Your task to perform on an android device: Google the capital of Peru Image 0: 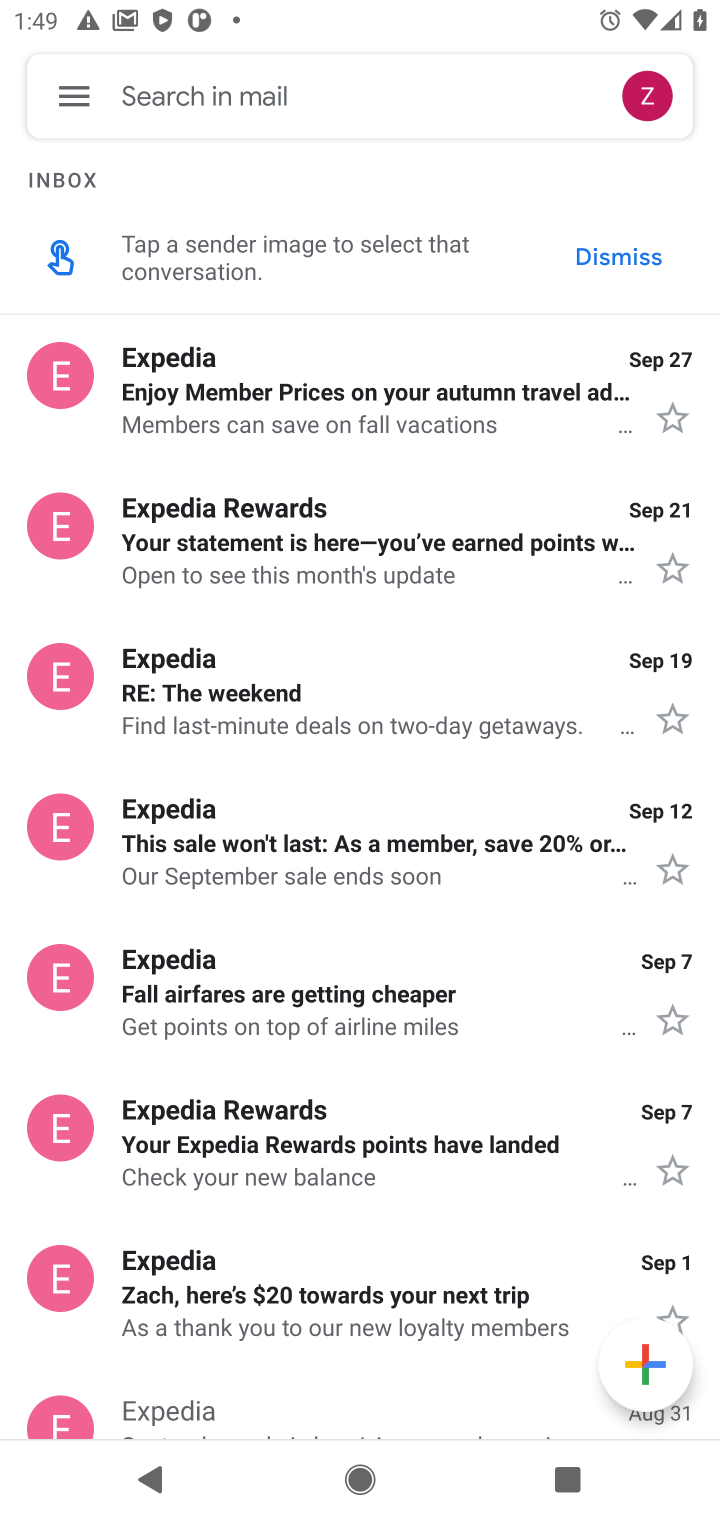
Step 0: press home button
Your task to perform on an android device: Google the capital of Peru Image 1: 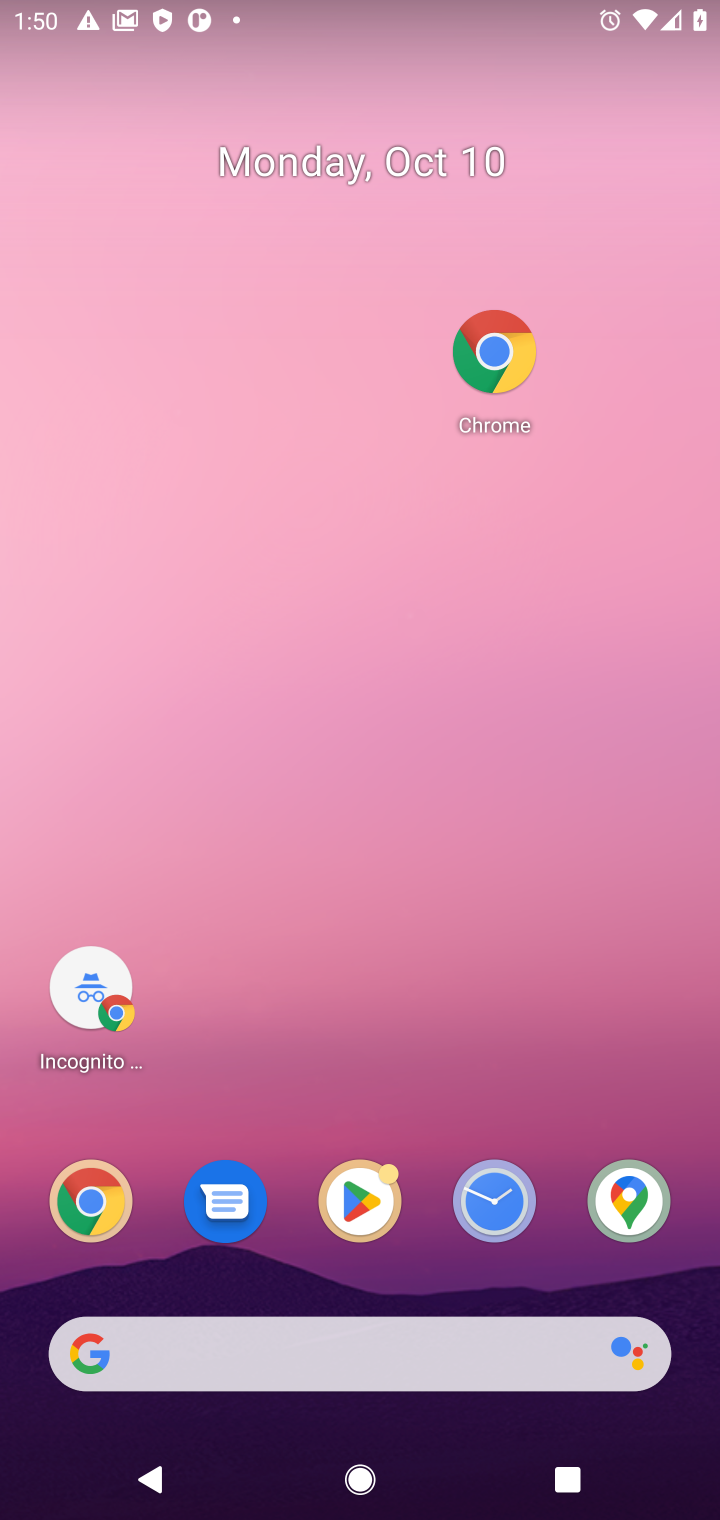
Step 1: click (149, 1363)
Your task to perform on an android device: Google the capital of Peru Image 2: 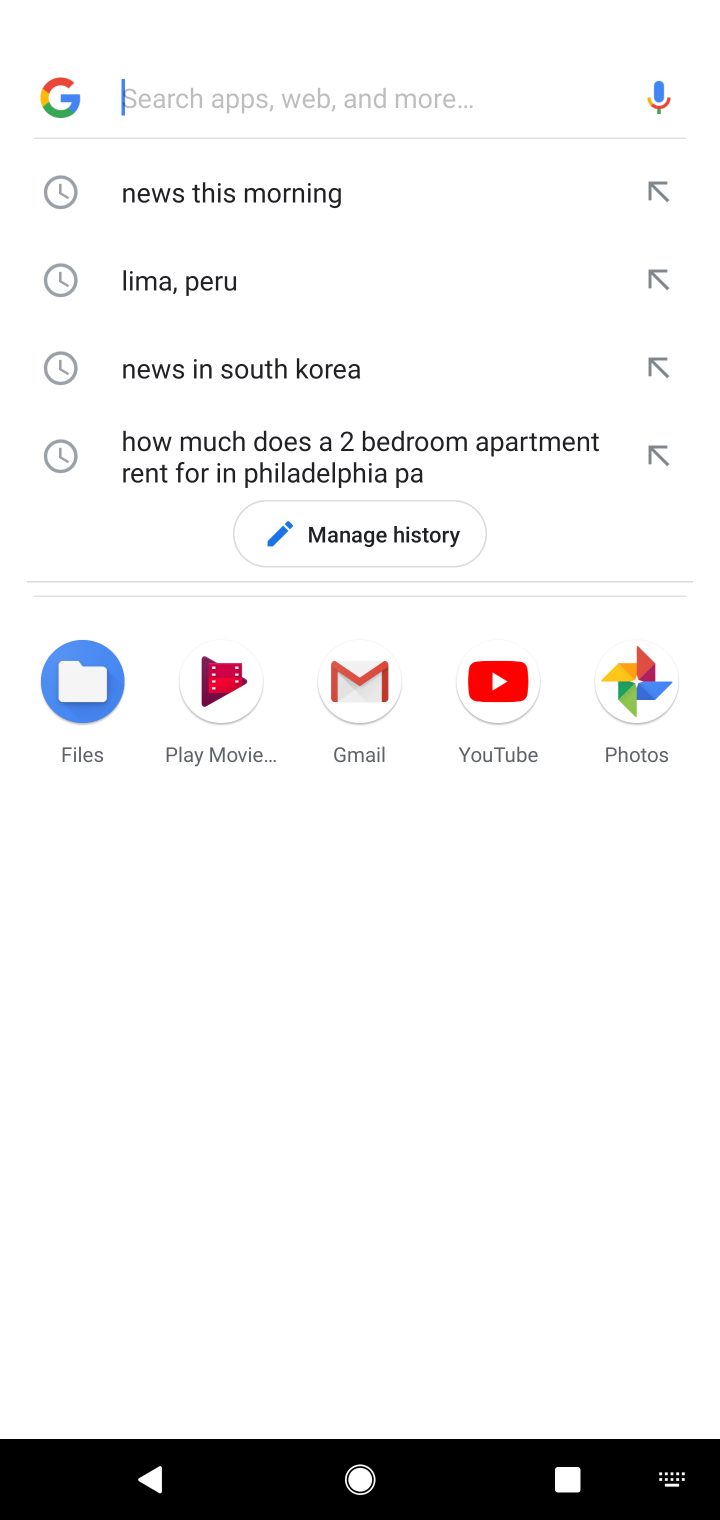
Step 2: click (261, 98)
Your task to perform on an android device: Google the capital of Peru Image 3: 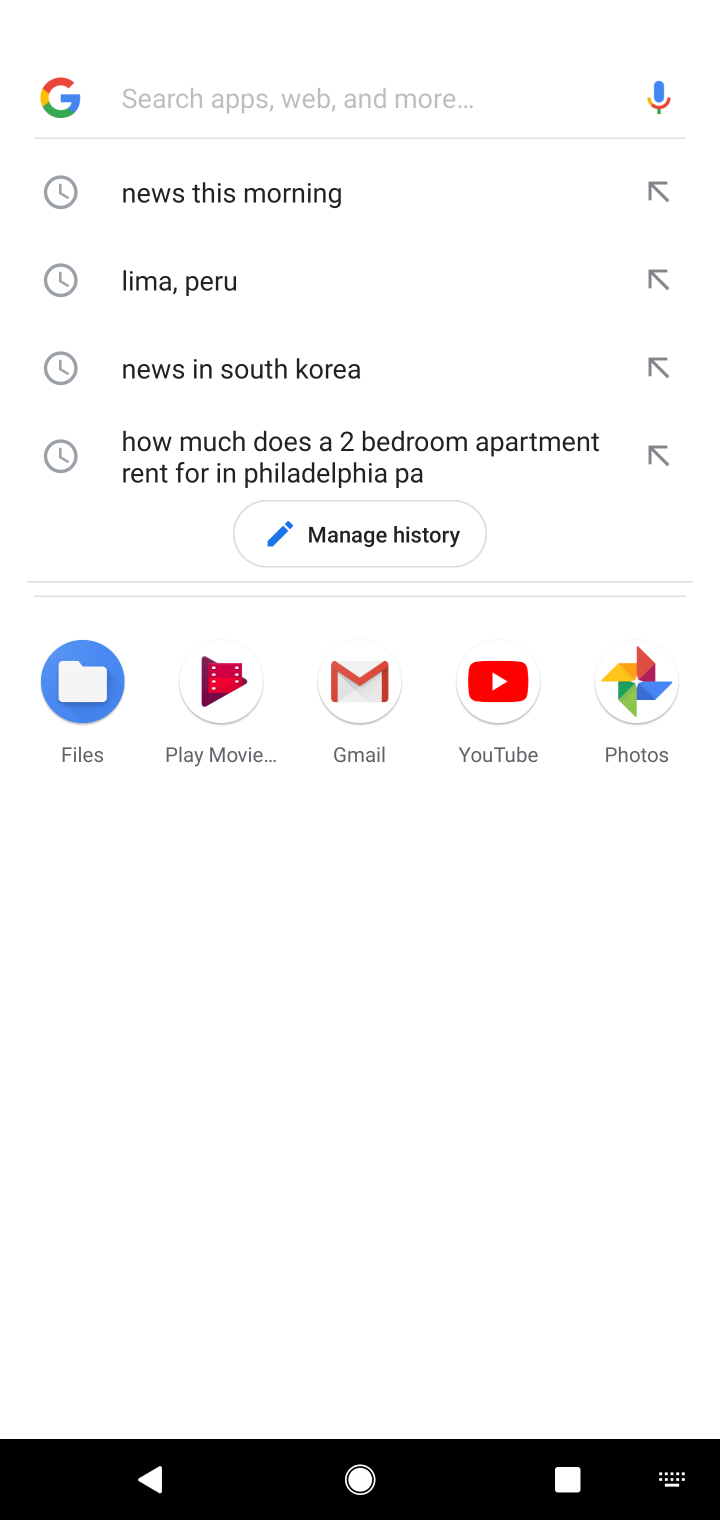
Step 3: type "capital of peru"
Your task to perform on an android device: Google the capital of Peru Image 4: 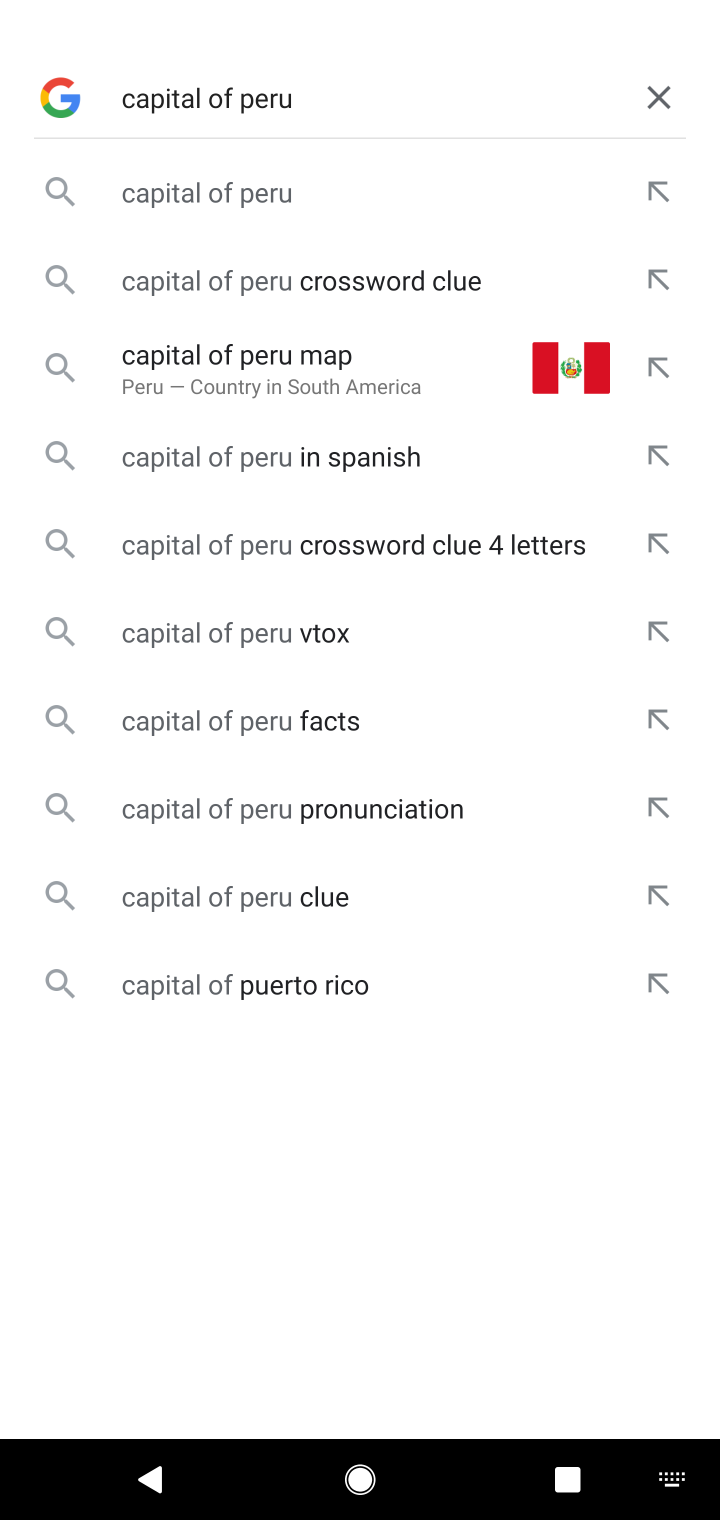
Step 4: click (201, 202)
Your task to perform on an android device: Google the capital of Peru Image 5: 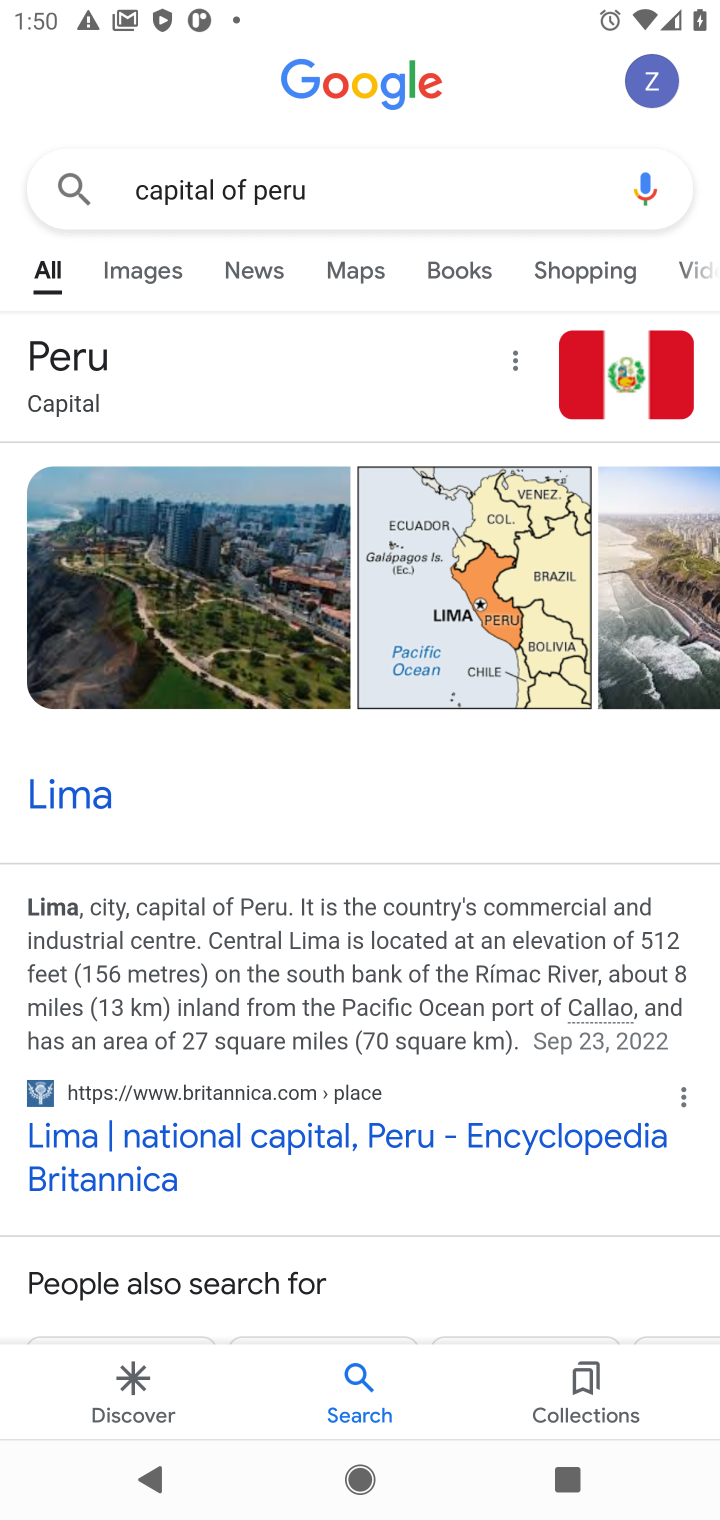
Step 5: click (45, 796)
Your task to perform on an android device: Google the capital of Peru Image 6: 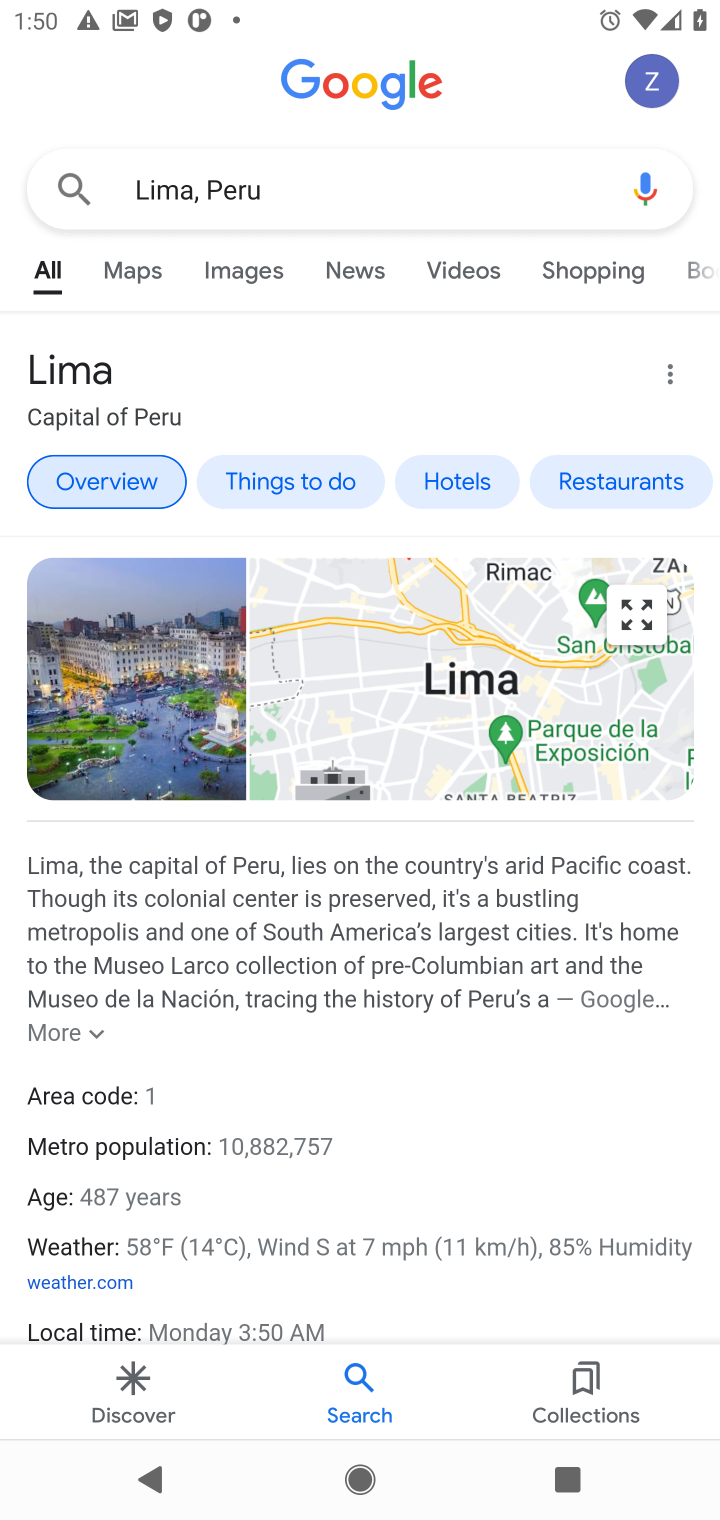
Step 6: task complete